Your task to perform on an android device: Go to eBay Image 0: 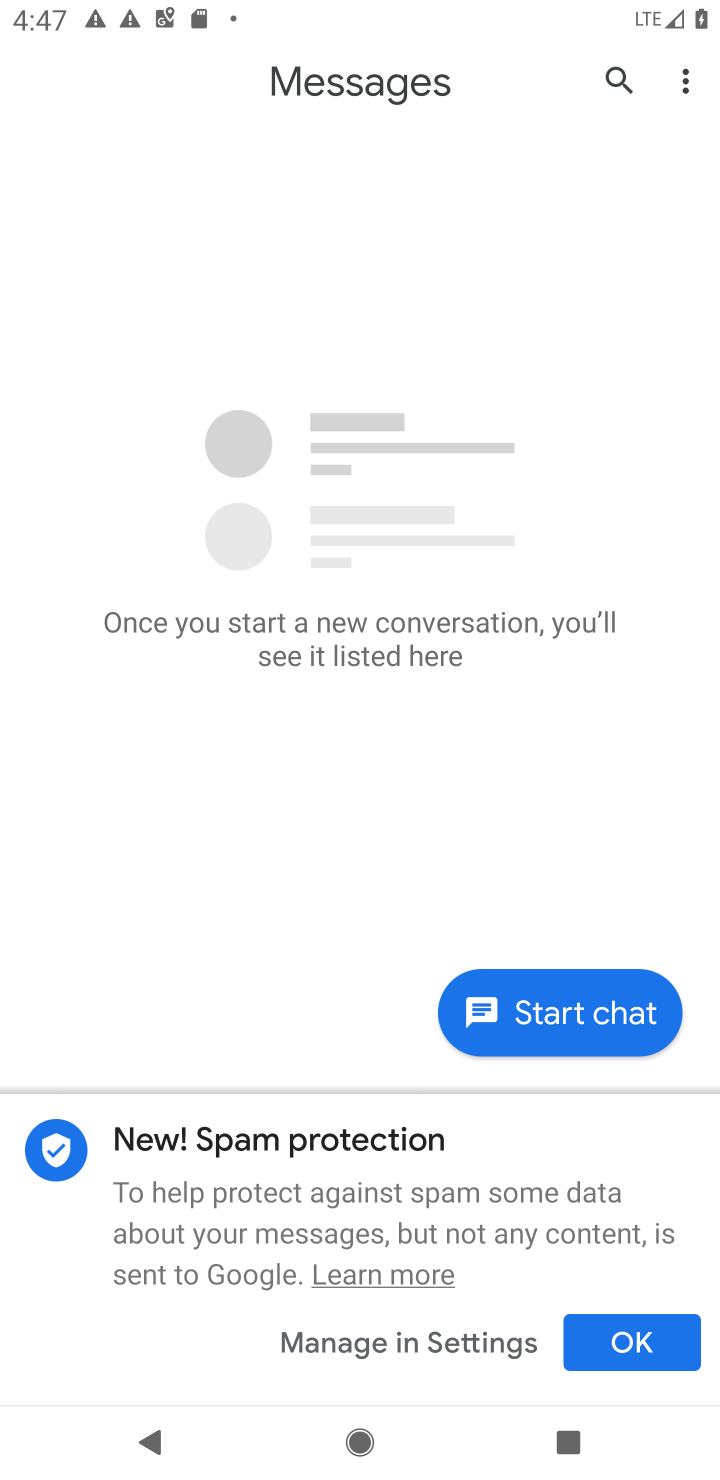
Step 0: press home button
Your task to perform on an android device: Go to eBay Image 1: 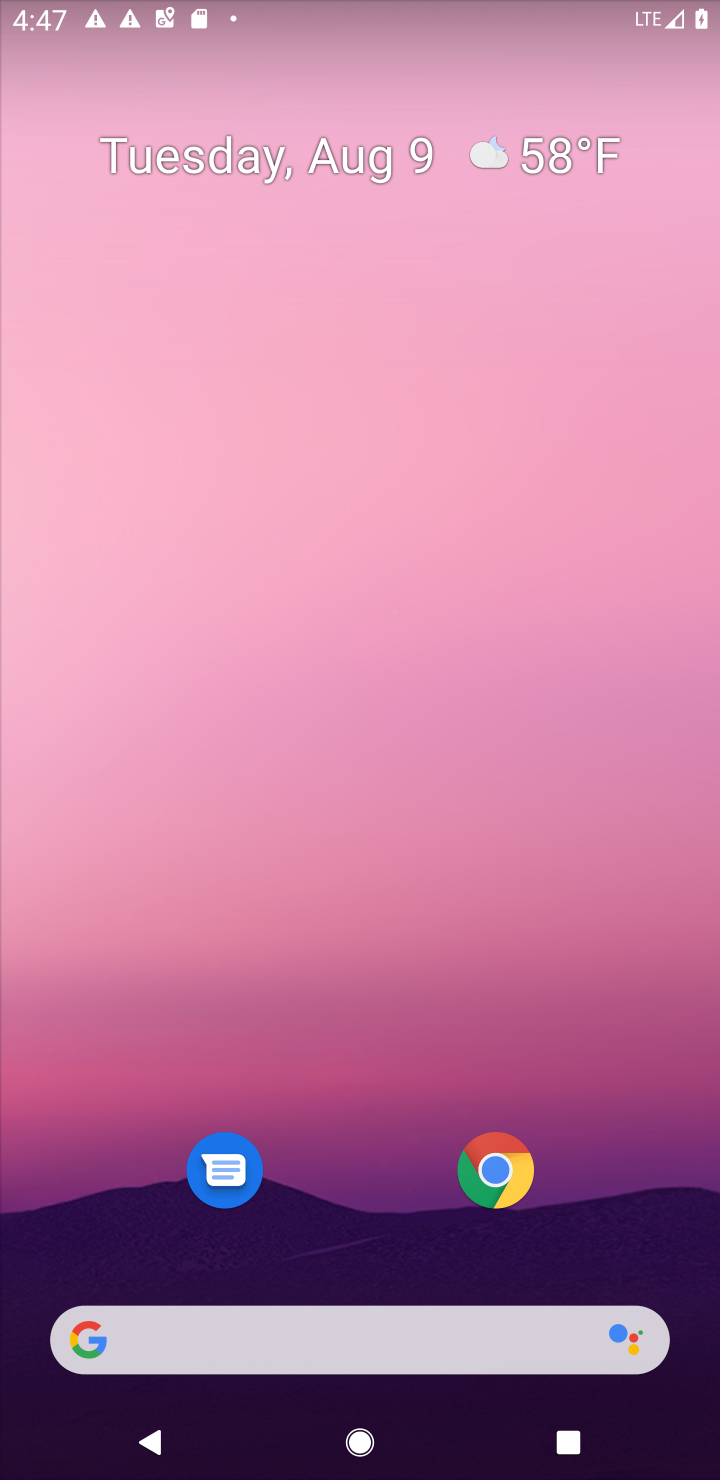
Step 1: click (77, 1334)
Your task to perform on an android device: Go to eBay Image 2: 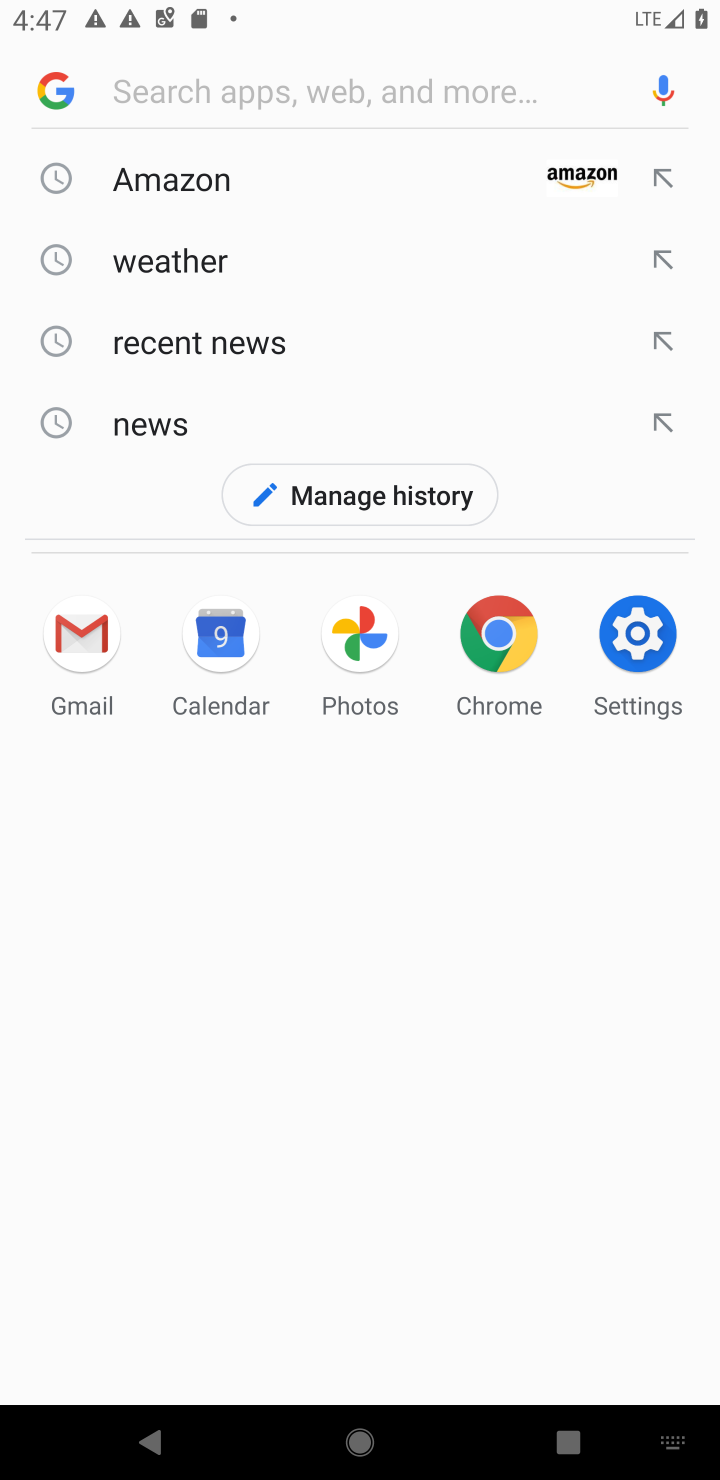
Step 2: type " eBay"
Your task to perform on an android device: Go to eBay Image 3: 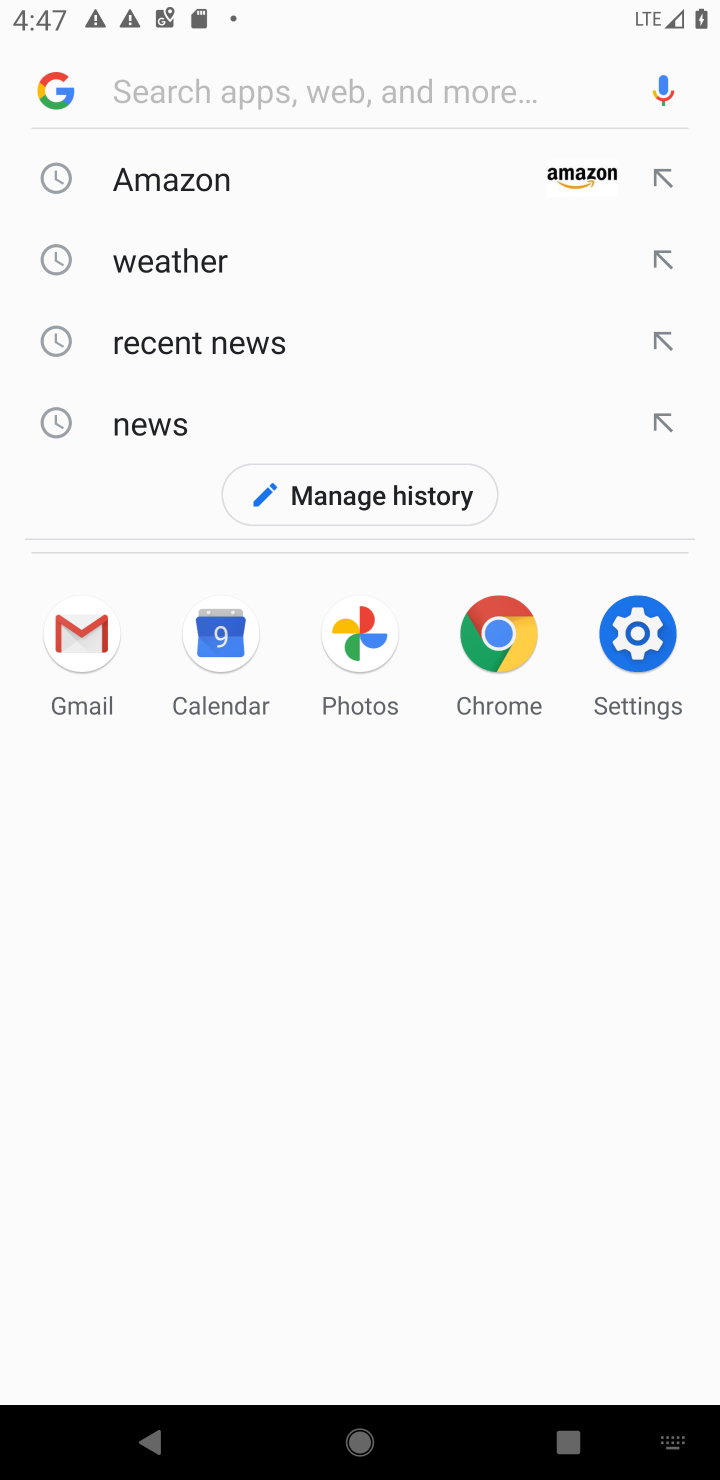
Step 3: click (126, 85)
Your task to perform on an android device: Go to eBay Image 4: 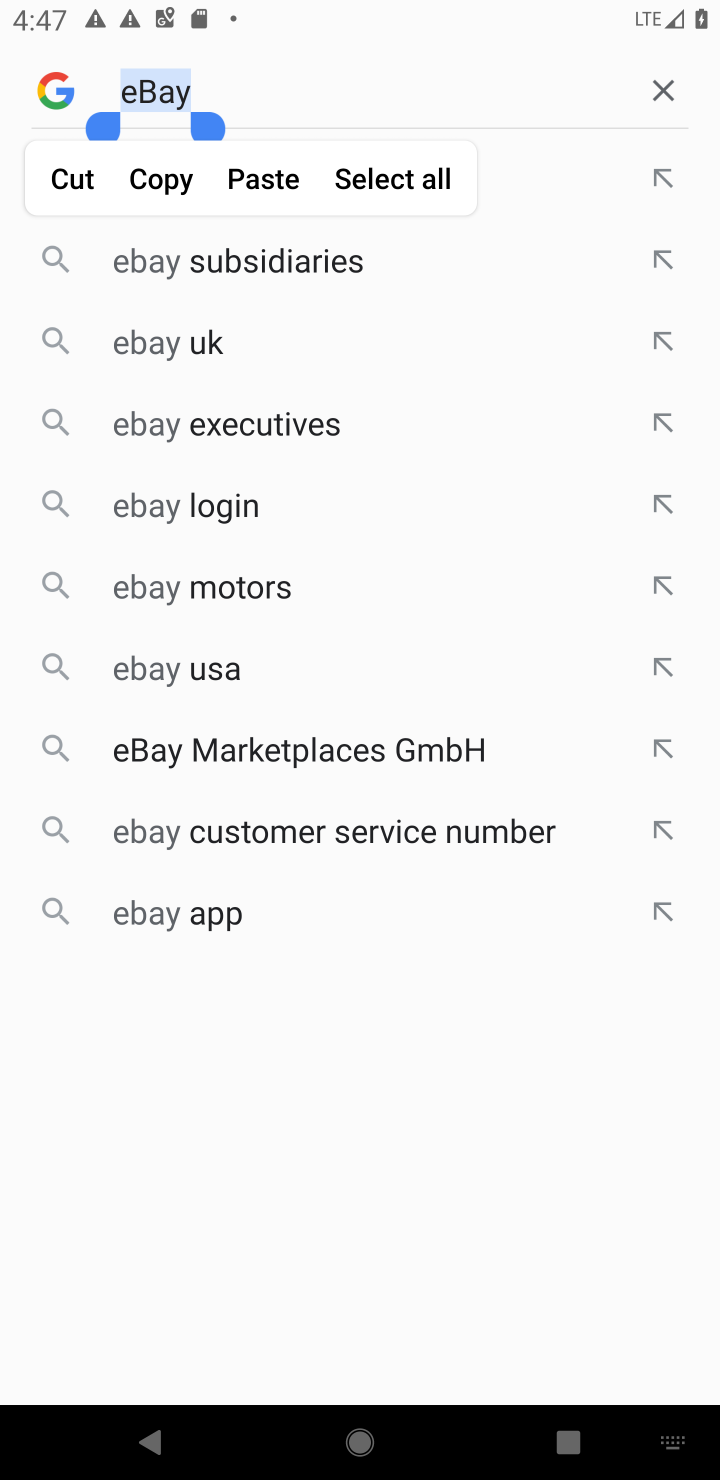
Step 4: press enter
Your task to perform on an android device: Go to eBay Image 5: 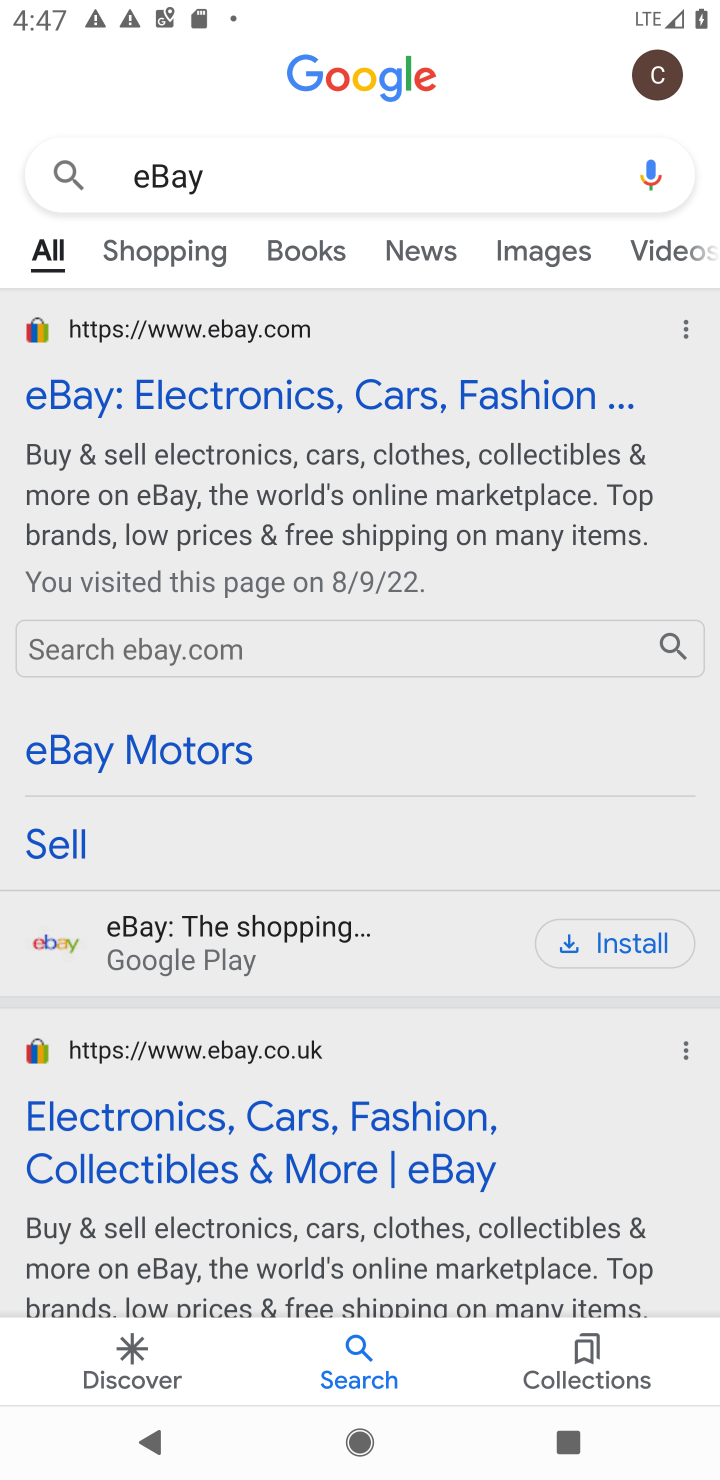
Step 5: click (181, 384)
Your task to perform on an android device: Go to eBay Image 6: 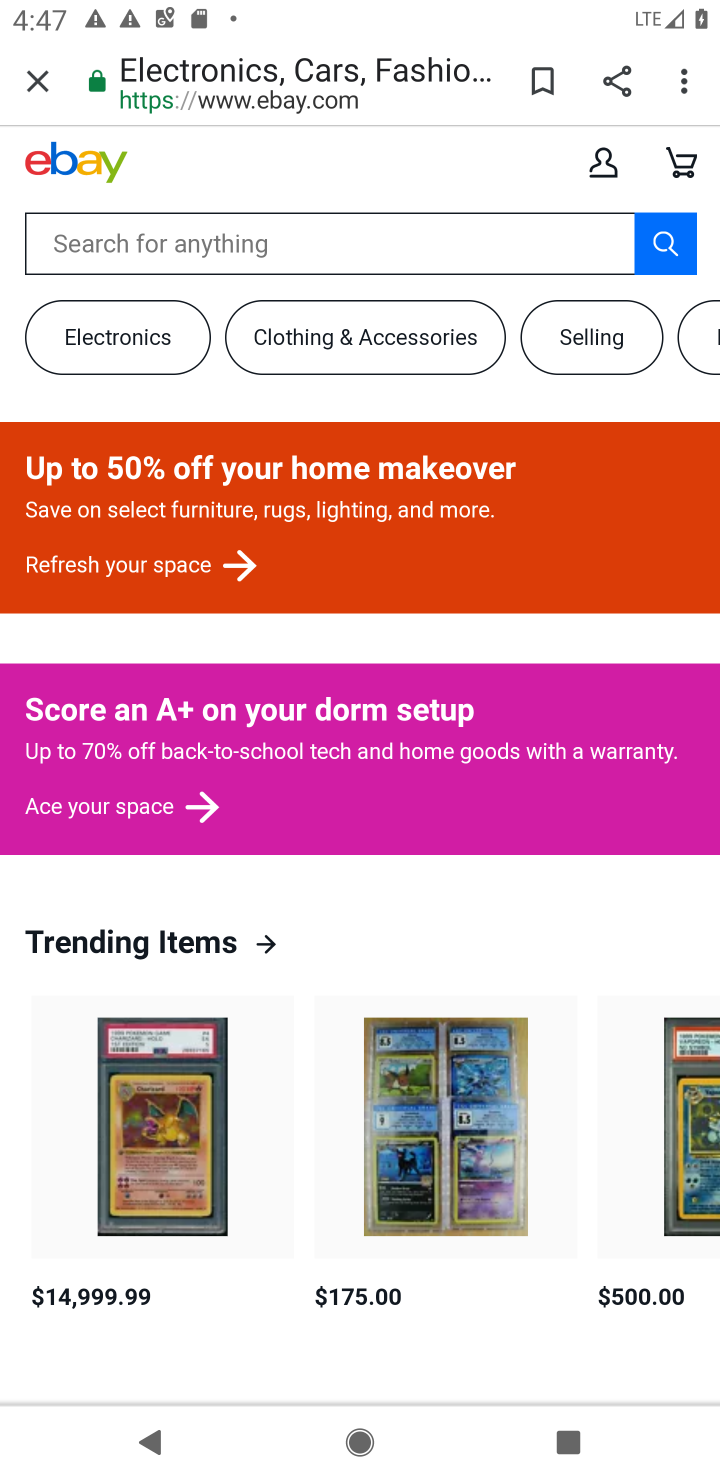
Step 6: task complete